Your task to perform on an android device: turn off translation in the chrome app Image 0: 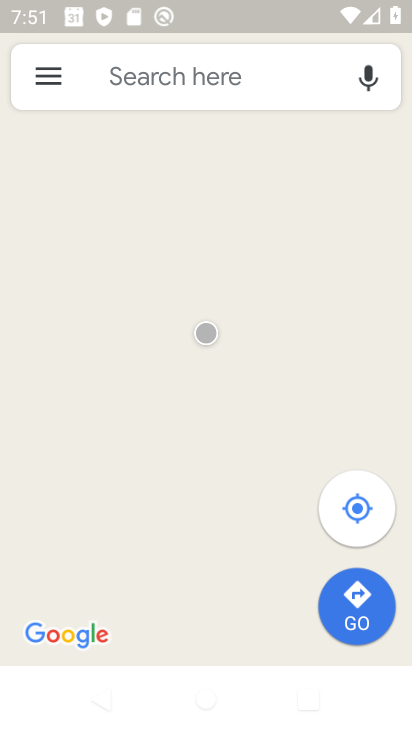
Step 0: press home button
Your task to perform on an android device: turn off translation in the chrome app Image 1: 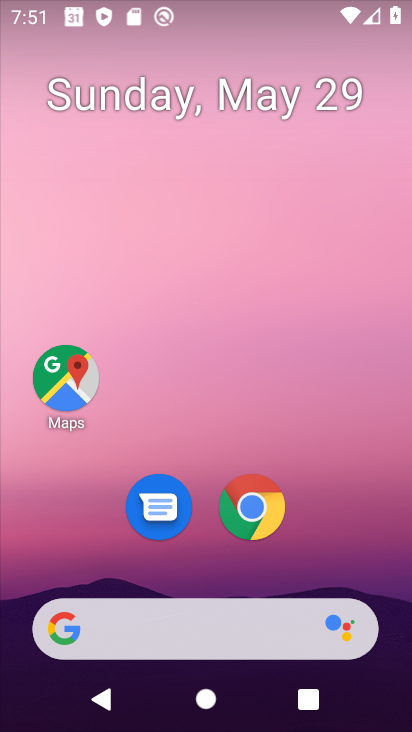
Step 1: drag from (312, 569) to (319, 214)
Your task to perform on an android device: turn off translation in the chrome app Image 2: 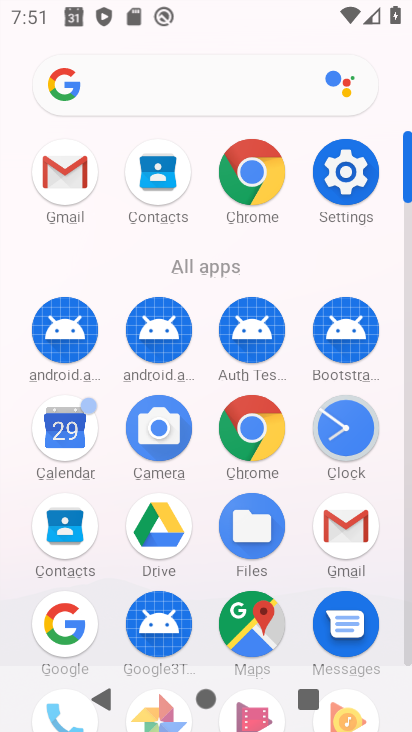
Step 2: click (250, 433)
Your task to perform on an android device: turn off translation in the chrome app Image 3: 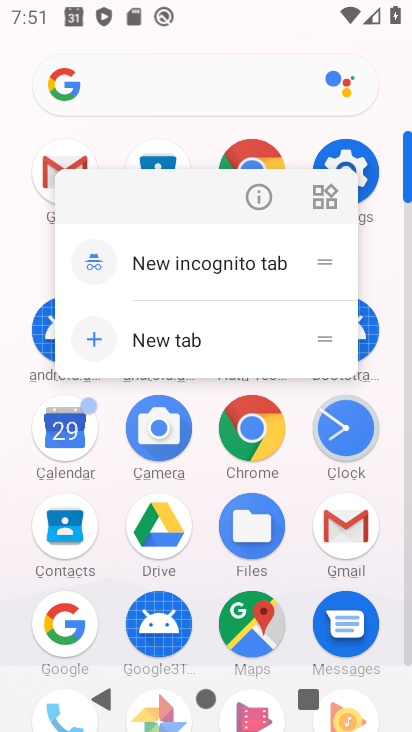
Step 3: click (253, 424)
Your task to perform on an android device: turn off translation in the chrome app Image 4: 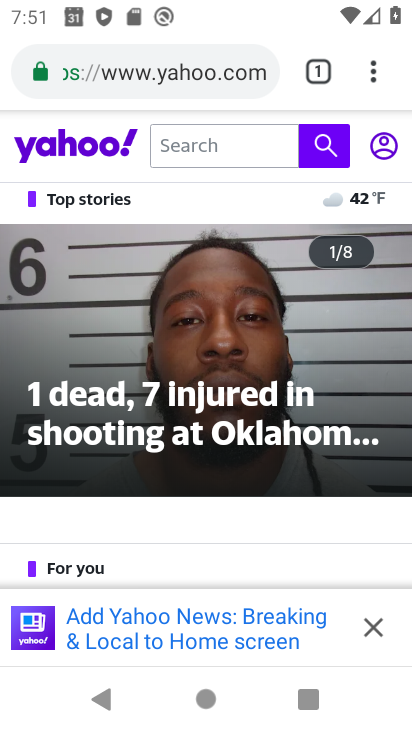
Step 4: drag from (377, 63) to (211, 518)
Your task to perform on an android device: turn off translation in the chrome app Image 5: 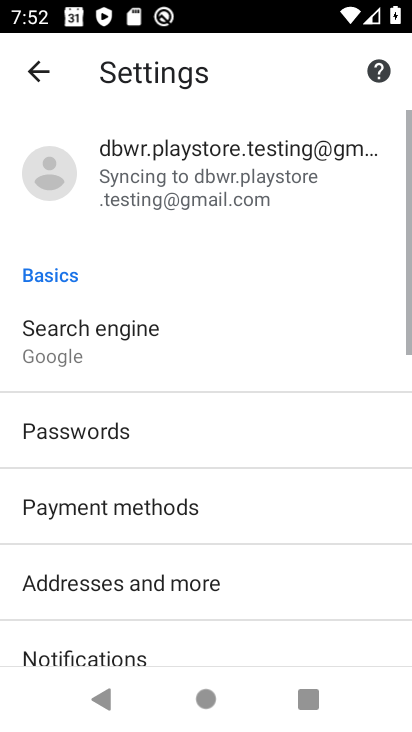
Step 5: drag from (210, 508) to (319, 97)
Your task to perform on an android device: turn off translation in the chrome app Image 6: 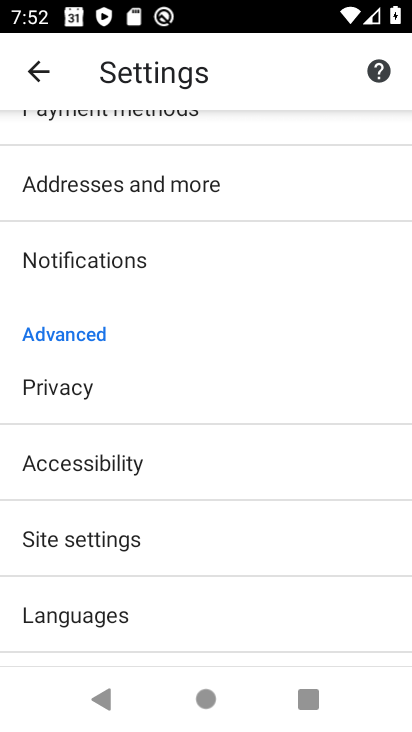
Step 6: drag from (157, 552) to (227, 126)
Your task to perform on an android device: turn off translation in the chrome app Image 7: 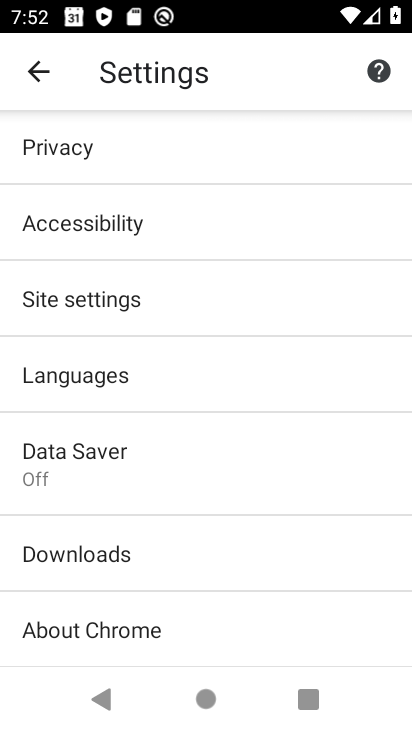
Step 7: click (163, 368)
Your task to perform on an android device: turn off translation in the chrome app Image 8: 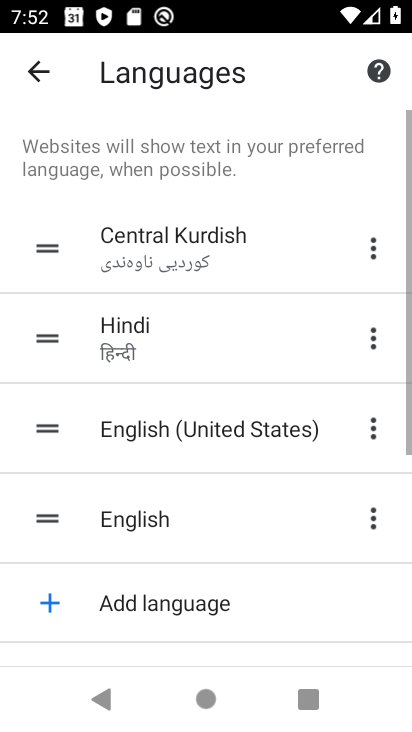
Step 8: drag from (225, 592) to (309, 150)
Your task to perform on an android device: turn off translation in the chrome app Image 9: 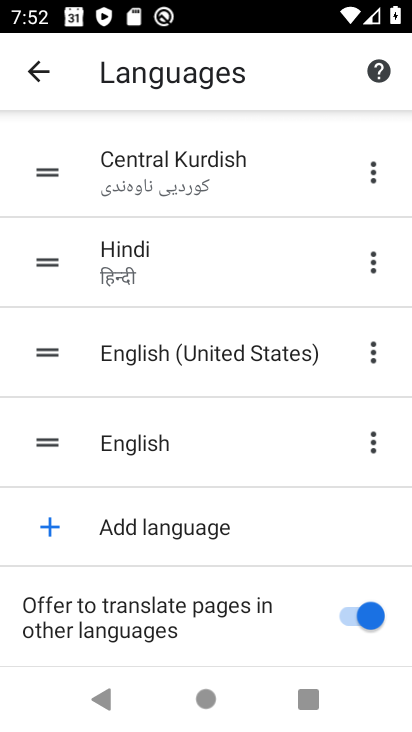
Step 9: click (361, 611)
Your task to perform on an android device: turn off translation in the chrome app Image 10: 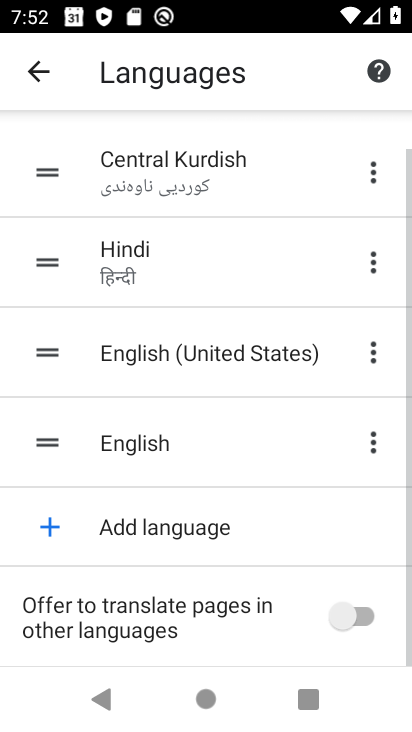
Step 10: task complete